Your task to perform on an android device: allow notifications from all sites in the chrome app Image 0: 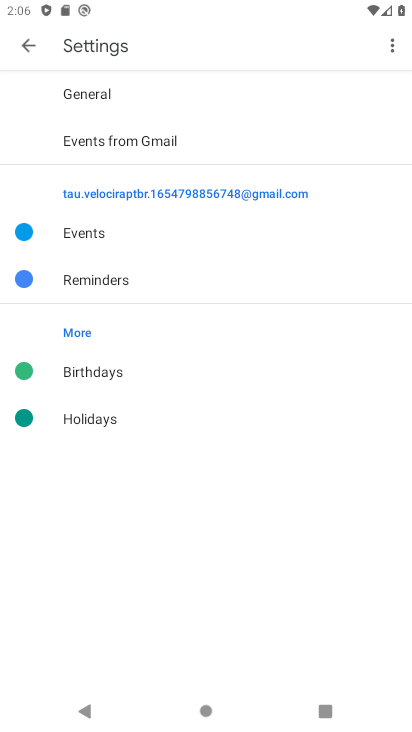
Step 0: press home button
Your task to perform on an android device: allow notifications from all sites in the chrome app Image 1: 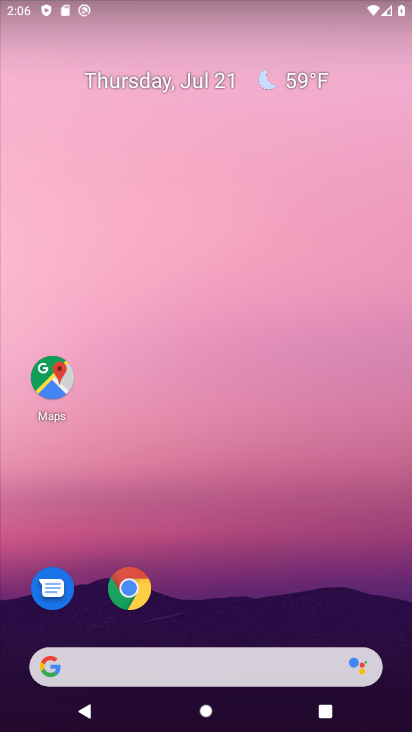
Step 1: click (125, 592)
Your task to perform on an android device: allow notifications from all sites in the chrome app Image 2: 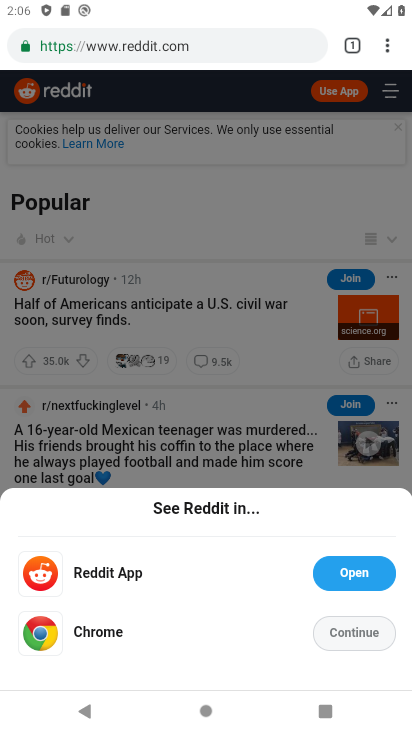
Step 2: press home button
Your task to perform on an android device: allow notifications from all sites in the chrome app Image 3: 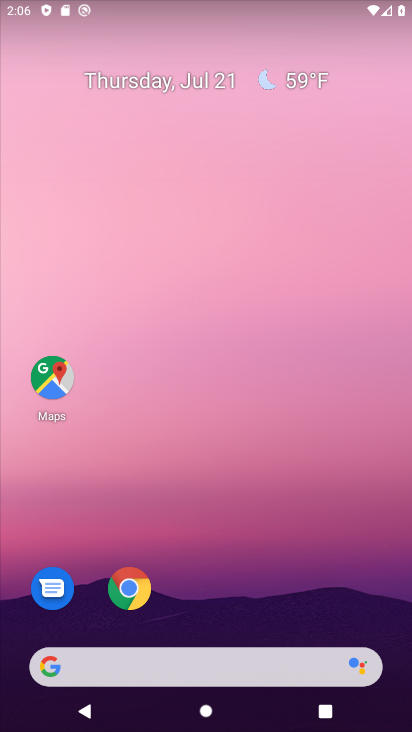
Step 3: drag from (395, 681) to (375, 178)
Your task to perform on an android device: allow notifications from all sites in the chrome app Image 4: 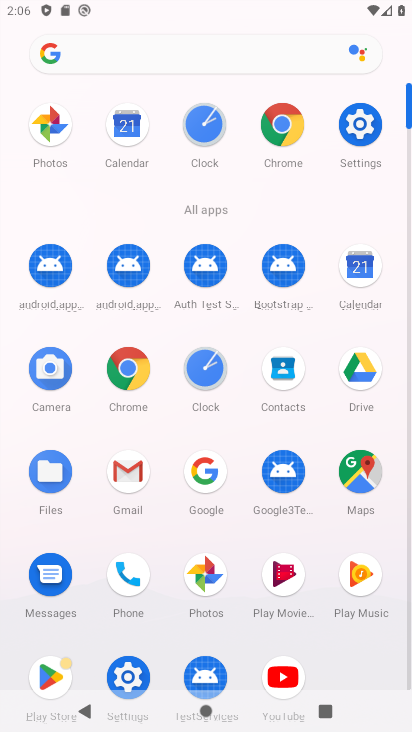
Step 4: click (135, 377)
Your task to perform on an android device: allow notifications from all sites in the chrome app Image 5: 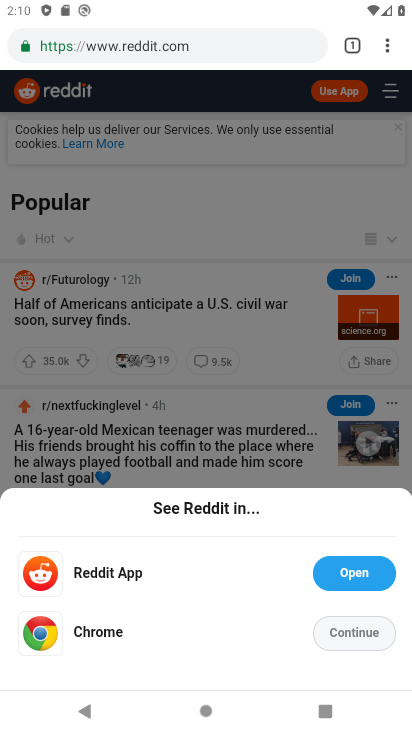
Step 5: task complete